Your task to perform on an android device: Open internet settings Image 0: 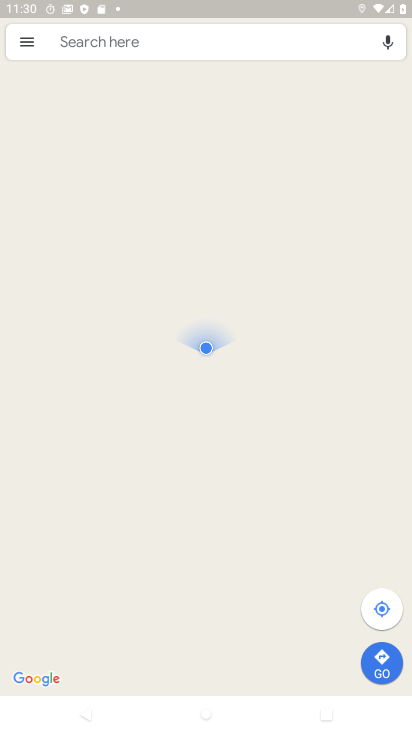
Step 0: press home button
Your task to perform on an android device: Open internet settings Image 1: 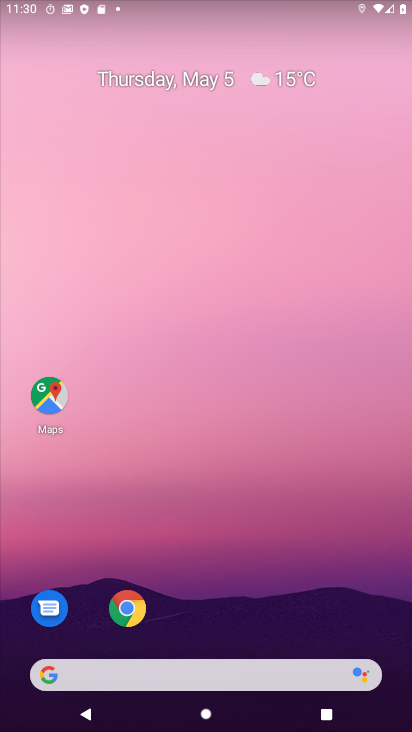
Step 1: drag from (226, 560) to (251, 56)
Your task to perform on an android device: Open internet settings Image 2: 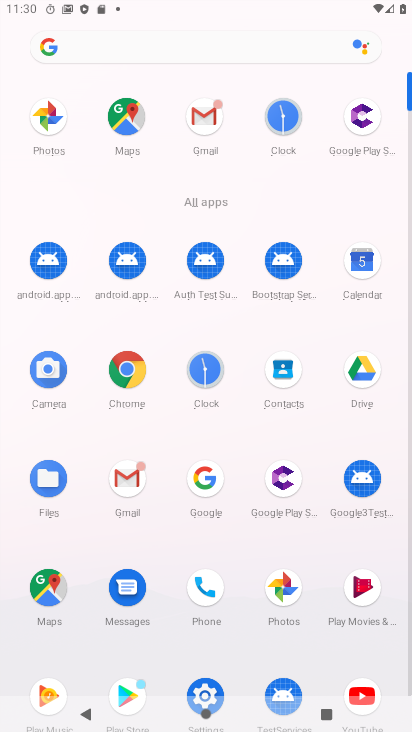
Step 2: drag from (233, 586) to (240, 390)
Your task to perform on an android device: Open internet settings Image 3: 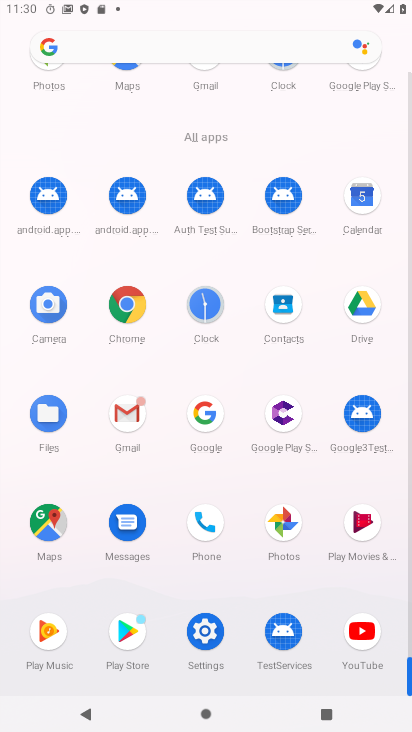
Step 3: click (206, 631)
Your task to perform on an android device: Open internet settings Image 4: 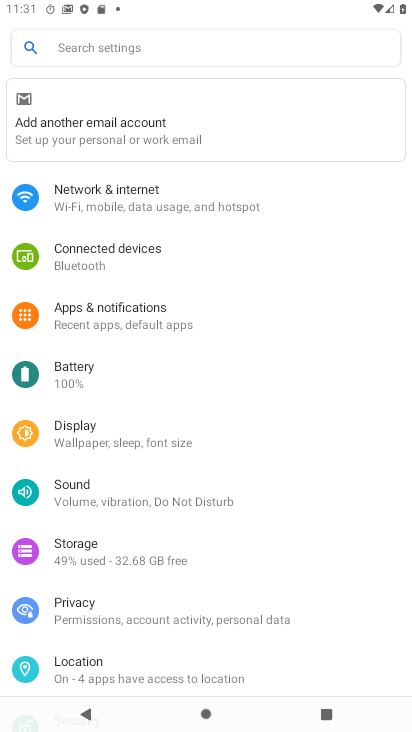
Step 4: click (112, 185)
Your task to perform on an android device: Open internet settings Image 5: 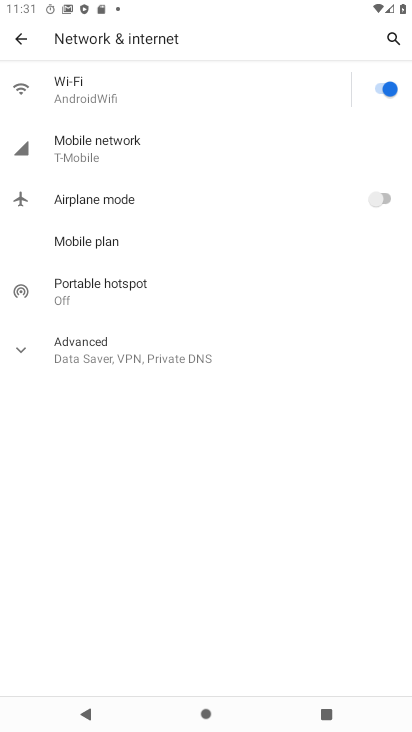
Step 5: click (79, 97)
Your task to perform on an android device: Open internet settings Image 6: 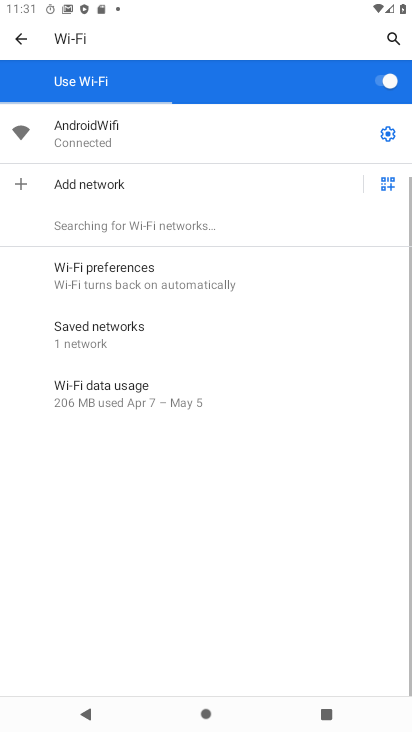
Step 6: click (388, 129)
Your task to perform on an android device: Open internet settings Image 7: 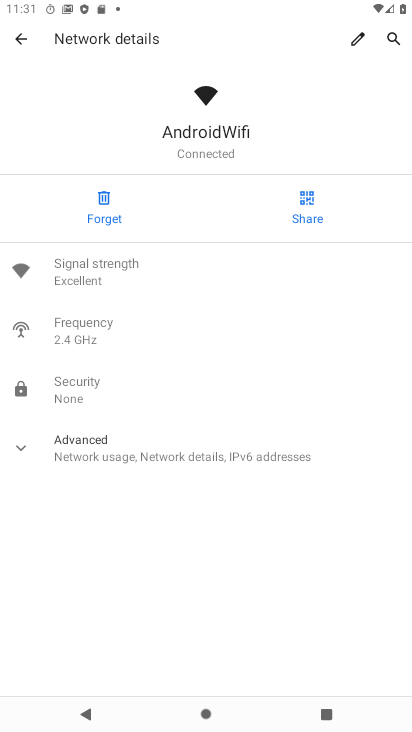
Step 7: task complete